Your task to perform on an android device: Is it going to rain tomorrow? Image 0: 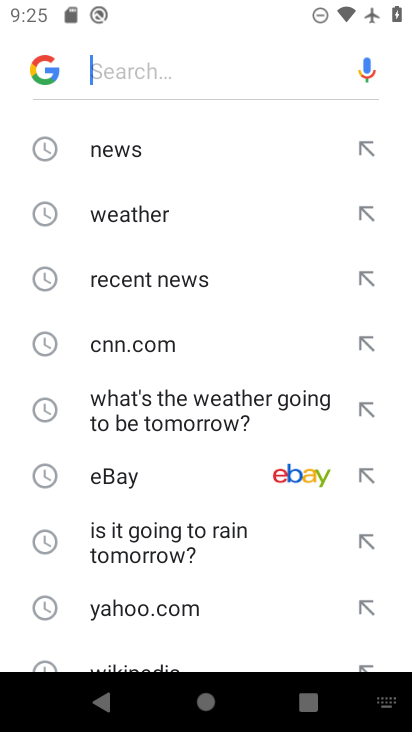
Step 0: press home button
Your task to perform on an android device: Is it going to rain tomorrow? Image 1: 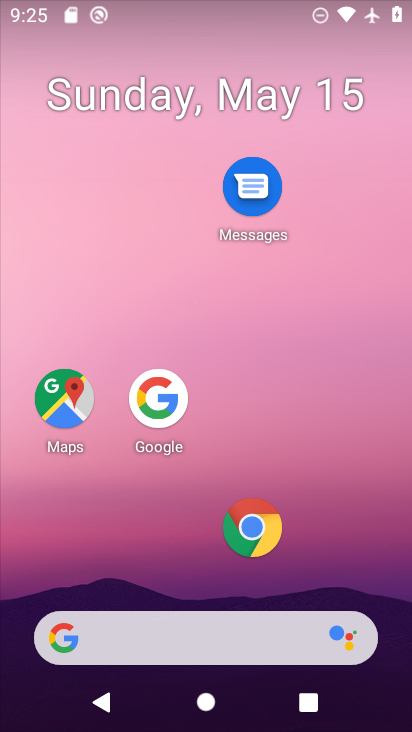
Step 1: click (64, 639)
Your task to perform on an android device: Is it going to rain tomorrow? Image 2: 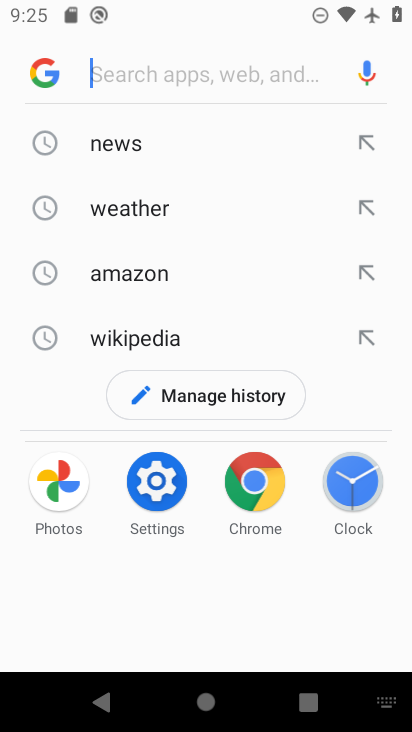
Step 2: click (138, 209)
Your task to perform on an android device: Is it going to rain tomorrow? Image 3: 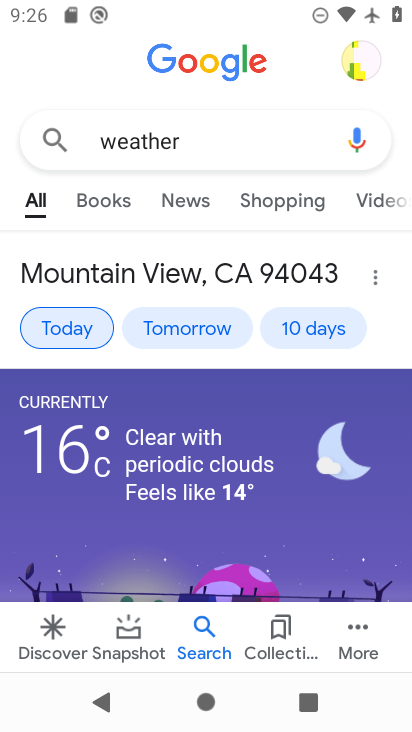
Step 3: click (196, 328)
Your task to perform on an android device: Is it going to rain tomorrow? Image 4: 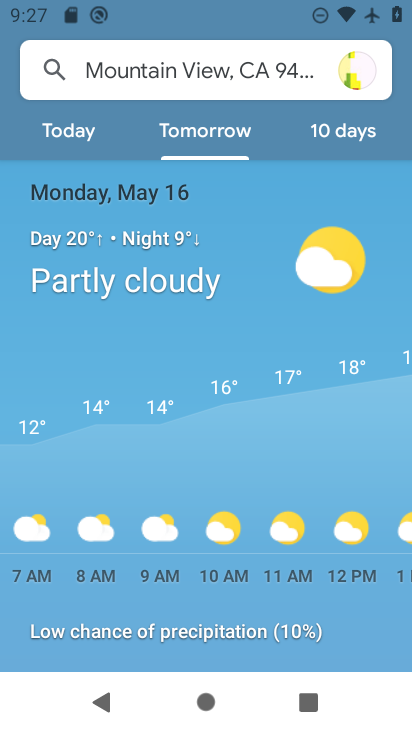
Step 4: task complete